Your task to perform on an android device: Play the last video I watched on Youtube Image 0: 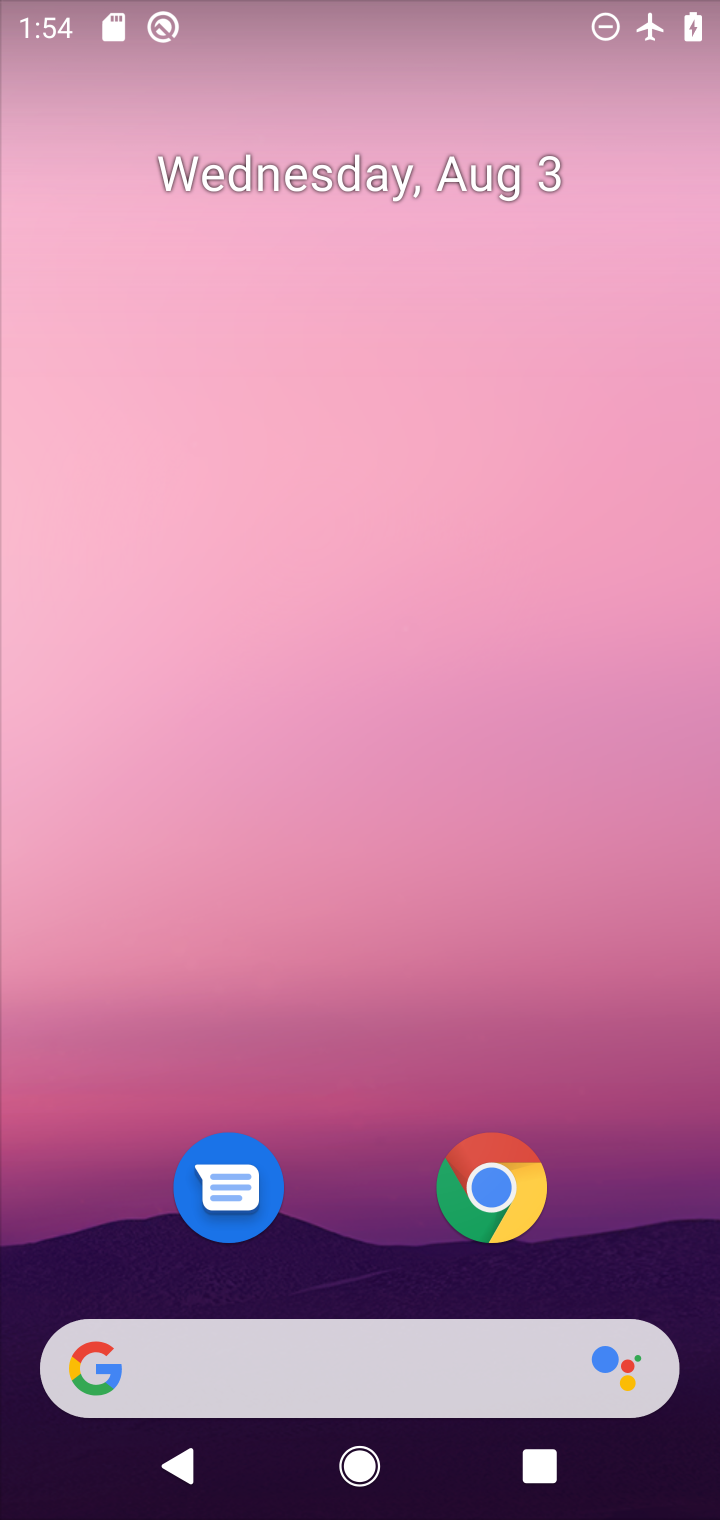
Step 0: drag from (549, 1034) to (457, 0)
Your task to perform on an android device: Play the last video I watched on Youtube Image 1: 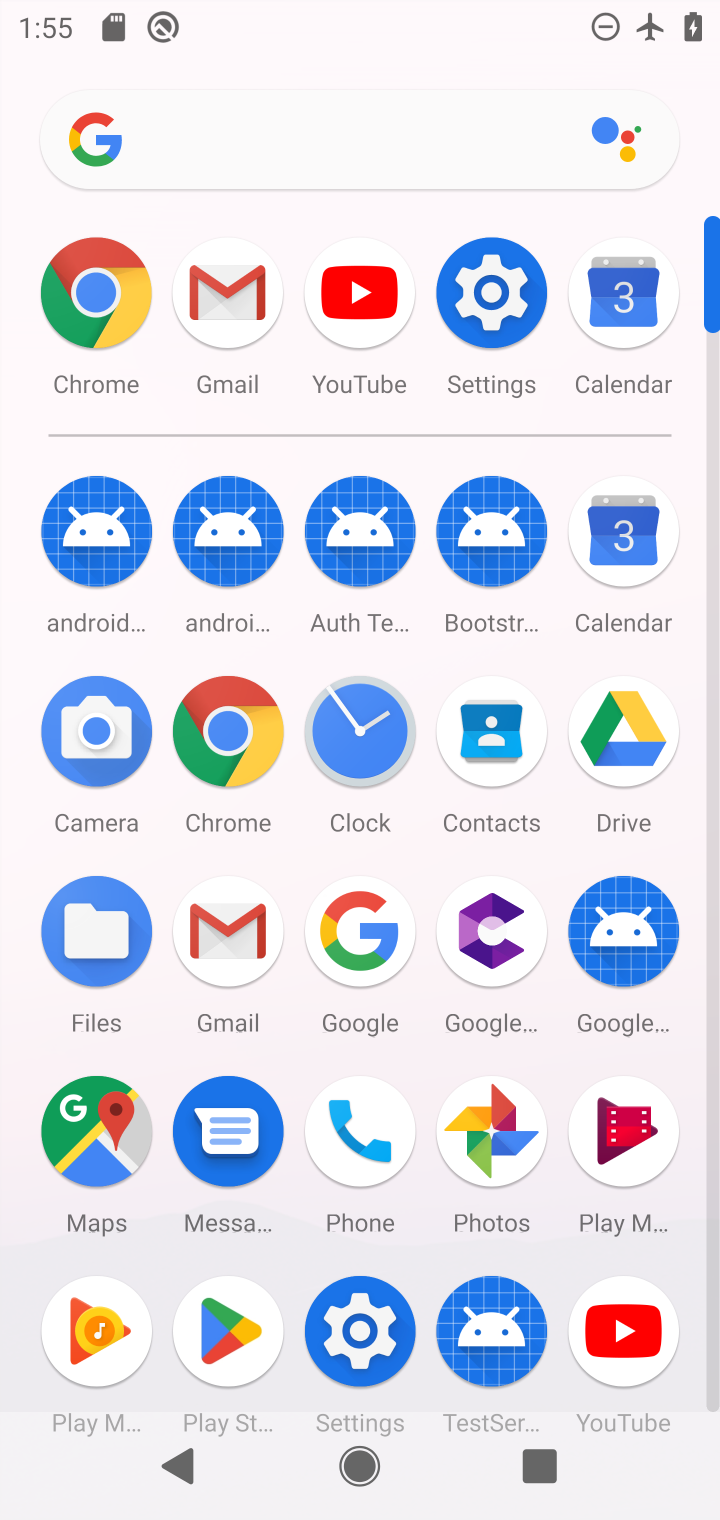
Step 1: click (353, 282)
Your task to perform on an android device: Play the last video I watched on Youtube Image 2: 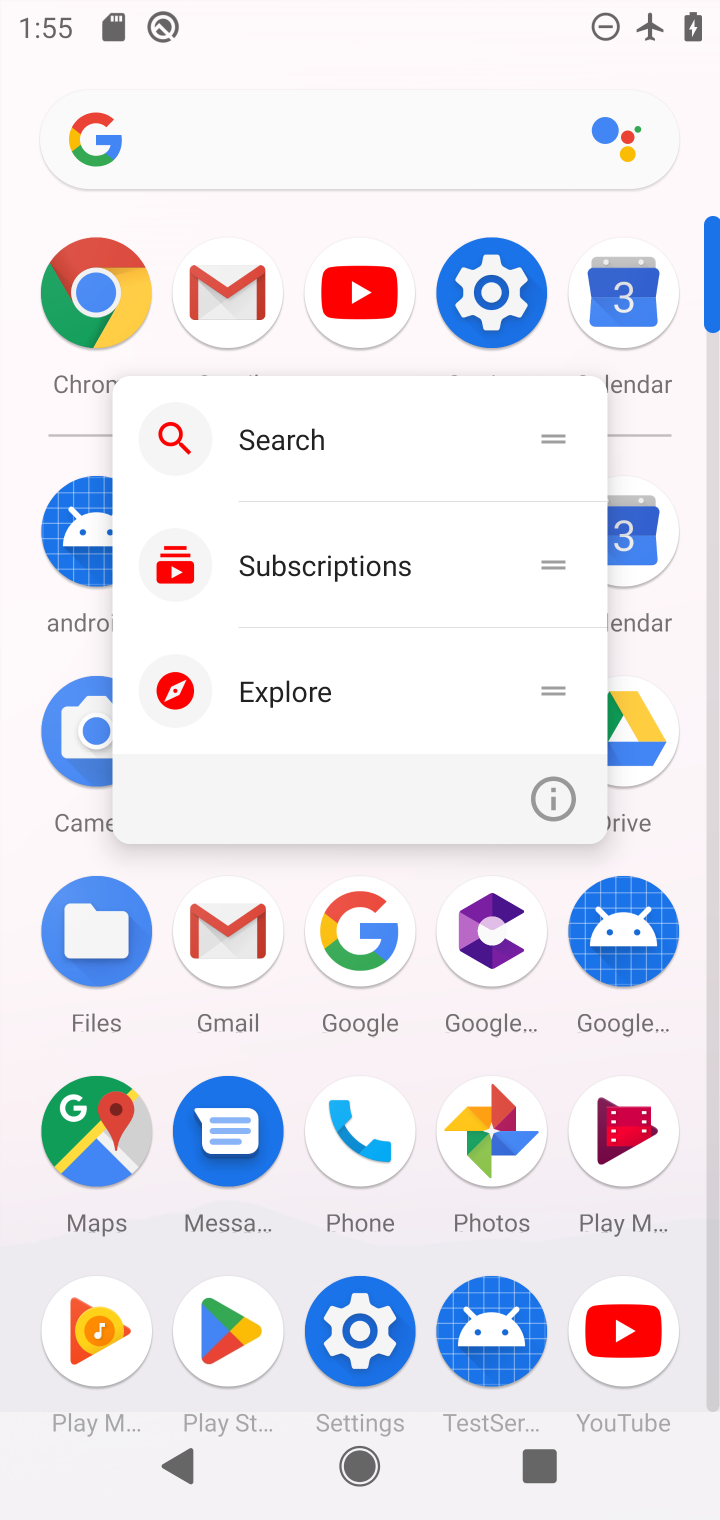
Step 2: click (353, 282)
Your task to perform on an android device: Play the last video I watched on Youtube Image 3: 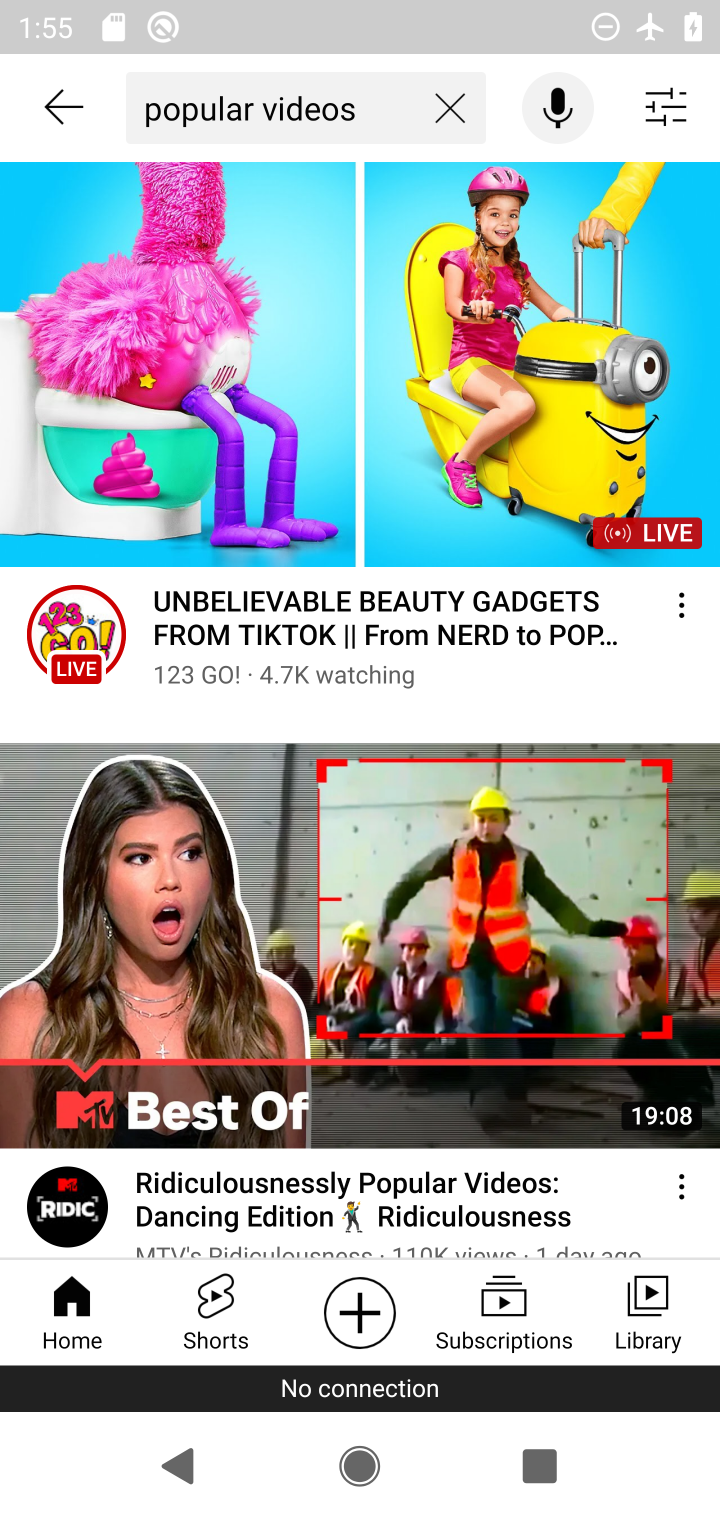
Step 3: click (651, 1299)
Your task to perform on an android device: Play the last video I watched on Youtube Image 4: 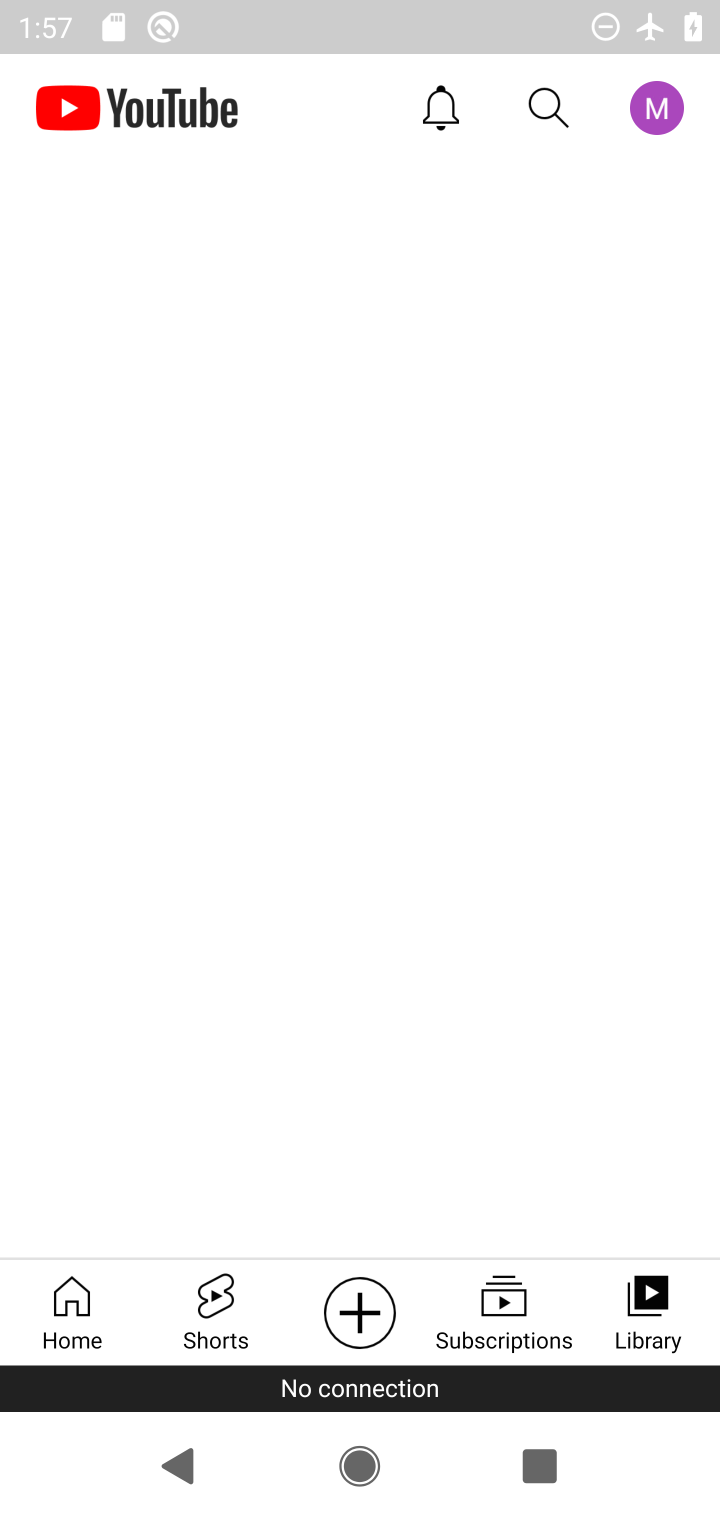
Step 4: click (639, 1292)
Your task to perform on an android device: Play the last video I watched on Youtube Image 5: 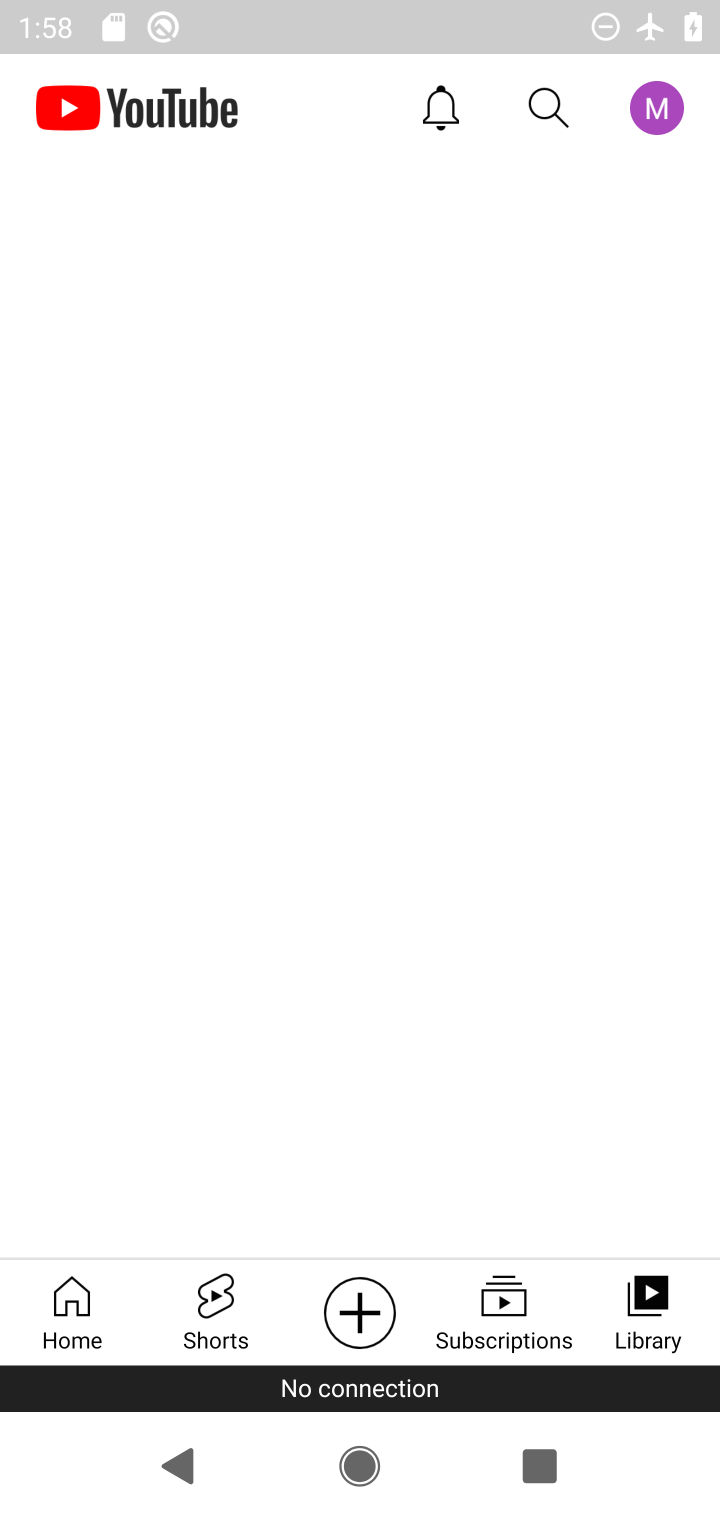
Step 5: click (639, 1292)
Your task to perform on an android device: Play the last video I watched on Youtube Image 6: 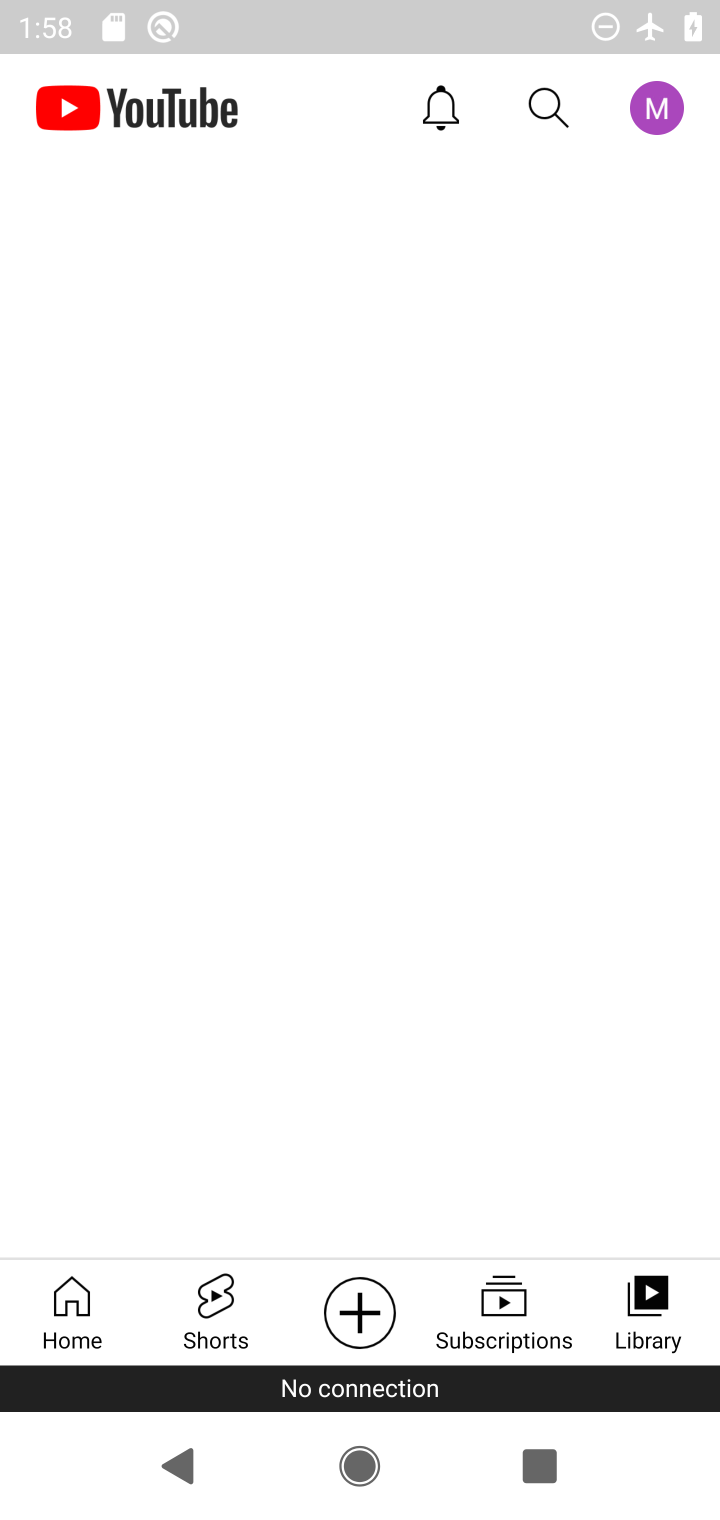
Step 6: task complete